Your task to perform on an android device: install app "Duolingo: language lessons" Image 0: 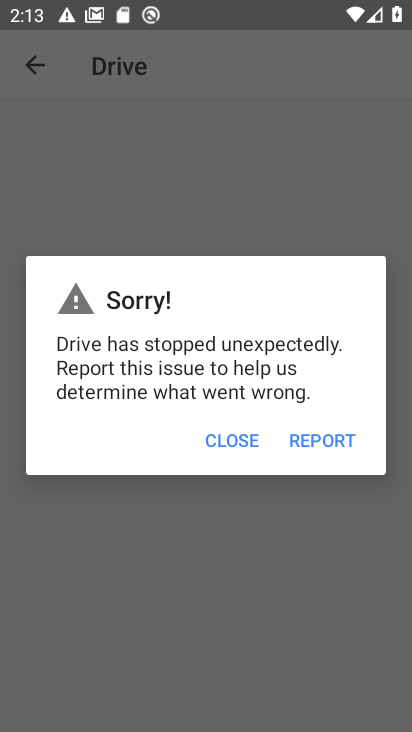
Step 0: press back button
Your task to perform on an android device: install app "Duolingo: language lessons" Image 1: 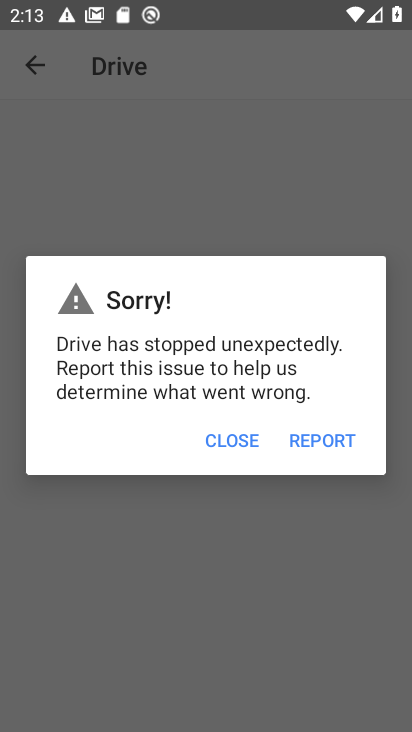
Step 1: press back button
Your task to perform on an android device: install app "Duolingo: language lessons" Image 2: 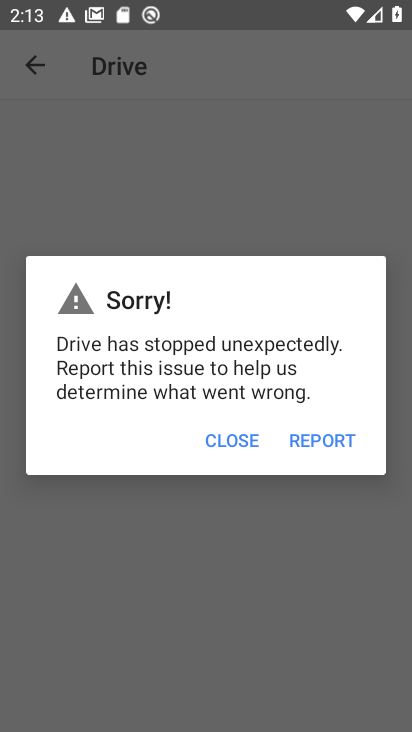
Step 2: press back button
Your task to perform on an android device: install app "Duolingo: language lessons" Image 3: 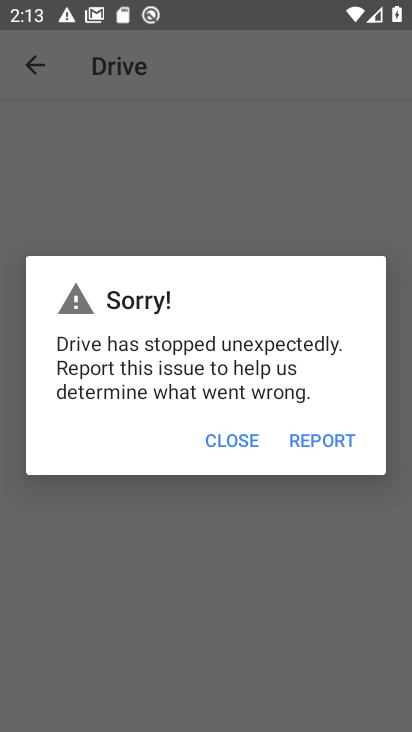
Step 3: press home button
Your task to perform on an android device: install app "Duolingo: language lessons" Image 4: 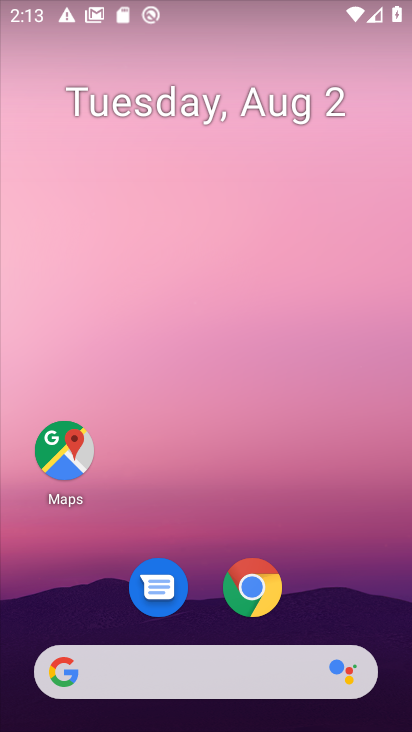
Step 4: drag from (204, 550) to (259, 164)
Your task to perform on an android device: install app "Duolingo: language lessons" Image 5: 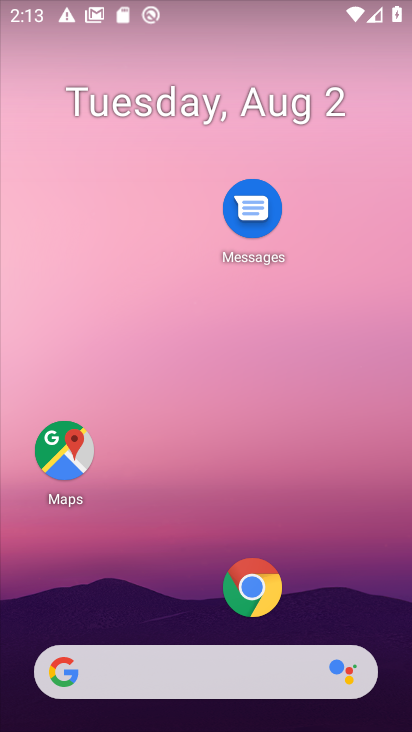
Step 5: drag from (170, 580) to (195, 256)
Your task to perform on an android device: install app "Duolingo: language lessons" Image 6: 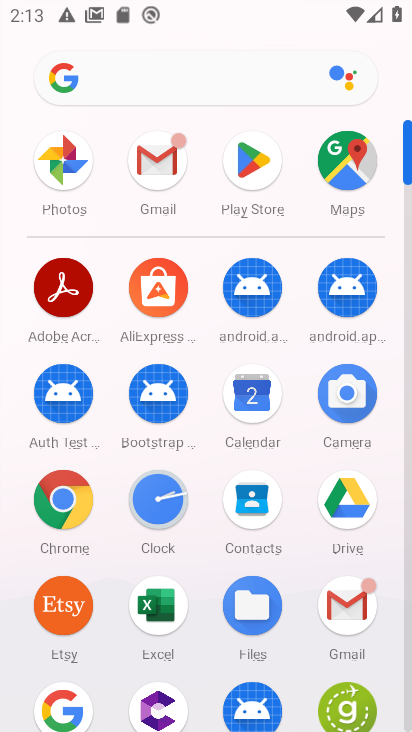
Step 6: click (262, 172)
Your task to perform on an android device: install app "Duolingo: language lessons" Image 7: 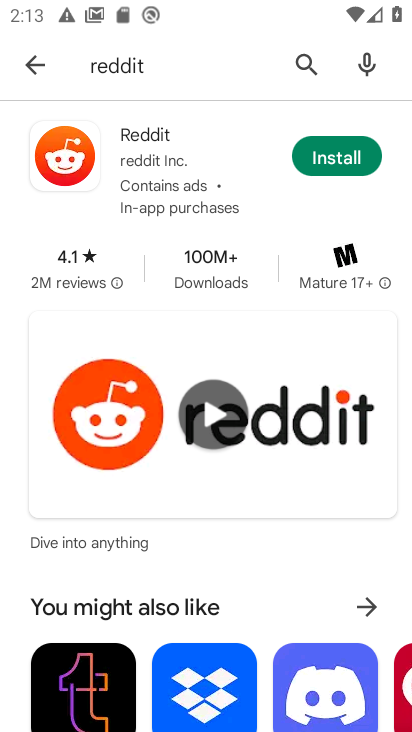
Step 7: click (316, 66)
Your task to perform on an android device: install app "Duolingo: language lessons" Image 8: 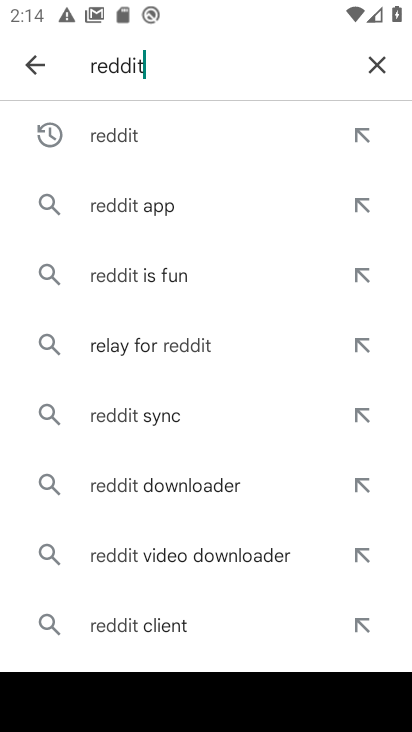
Step 8: click (372, 69)
Your task to perform on an android device: install app "Duolingo: language lessons" Image 9: 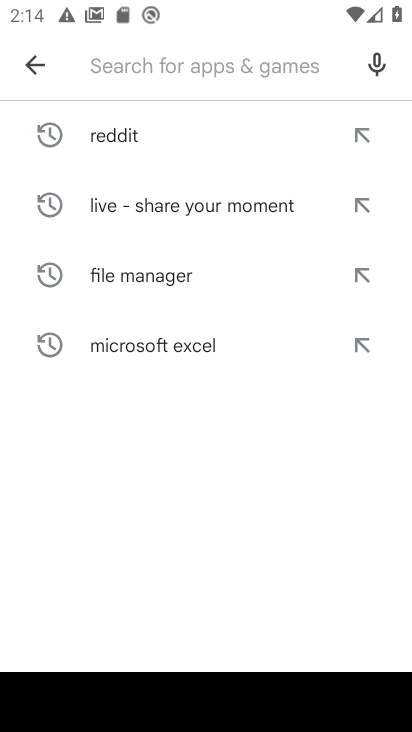
Step 9: type "Duolingo: language lessons"
Your task to perform on an android device: install app "Duolingo: language lessons" Image 10: 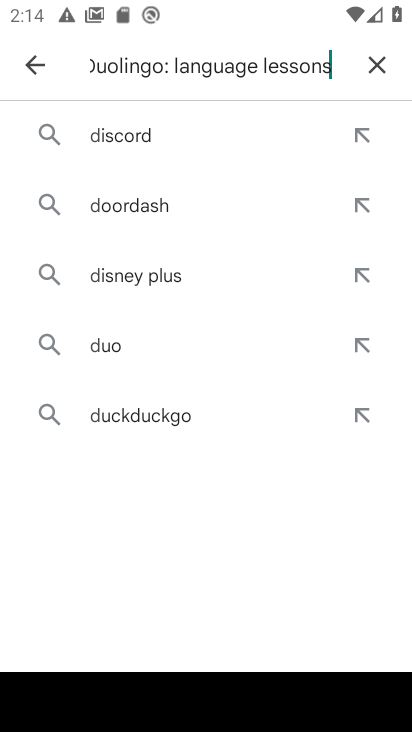
Step 10: type ""
Your task to perform on an android device: install app "Duolingo: language lessons" Image 11: 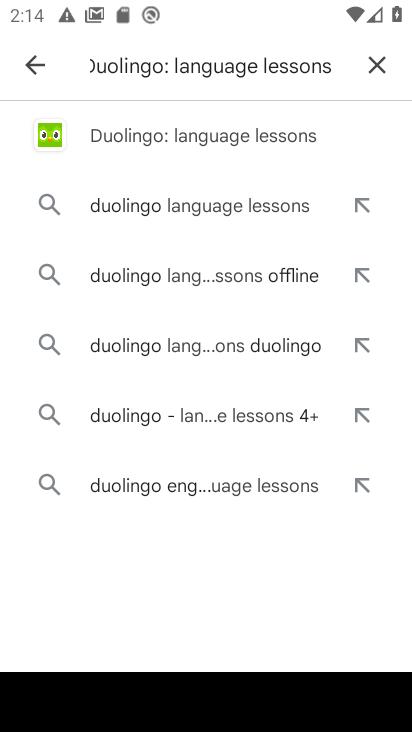
Step 11: click (229, 138)
Your task to perform on an android device: install app "Duolingo: language lessons" Image 12: 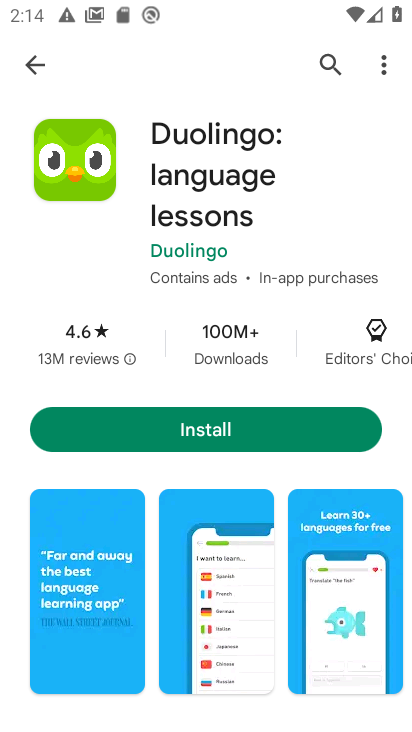
Step 12: click (285, 418)
Your task to perform on an android device: install app "Duolingo: language lessons" Image 13: 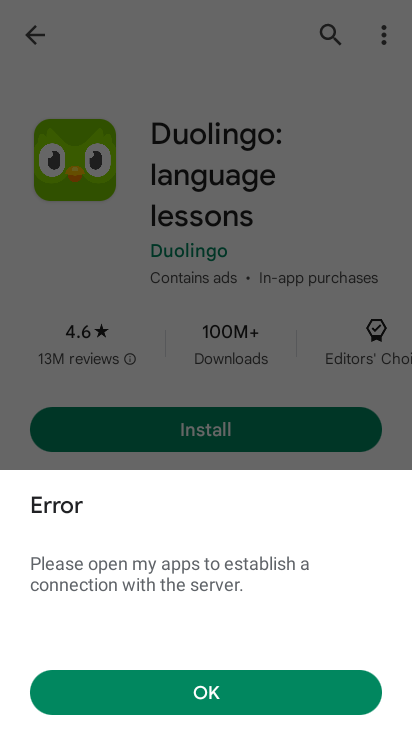
Step 13: task complete